Your task to perform on an android device: Open Chrome and go to settings Image 0: 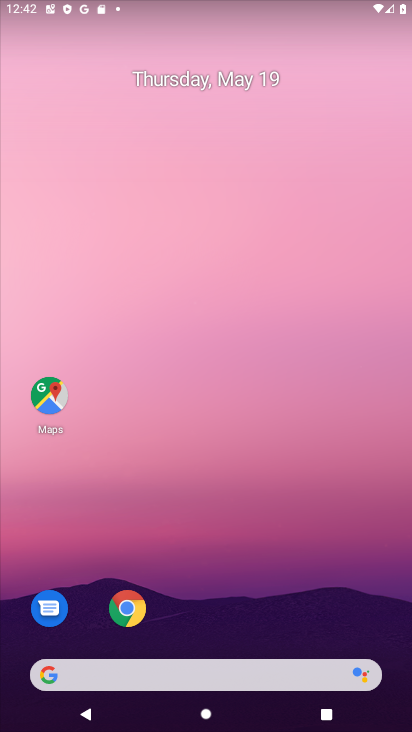
Step 0: drag from (251, 582) to (262, 304)
Your task to perform on an android device: Open Chrome and go to settings Image 1: 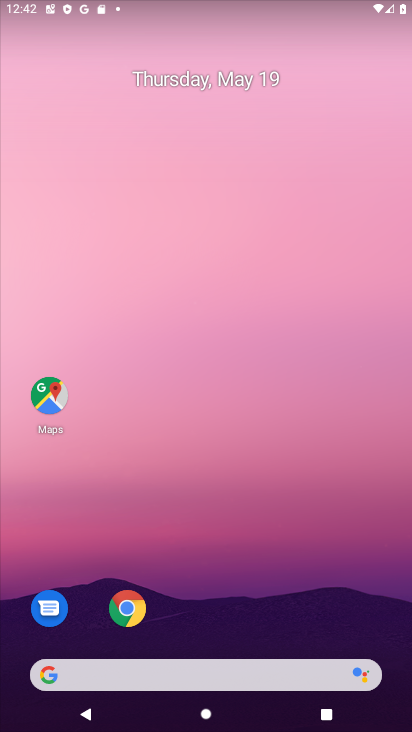
Step 1: click (128, 599)
Your task to perform on an android device: Open Chrome and go to settings Image 2: 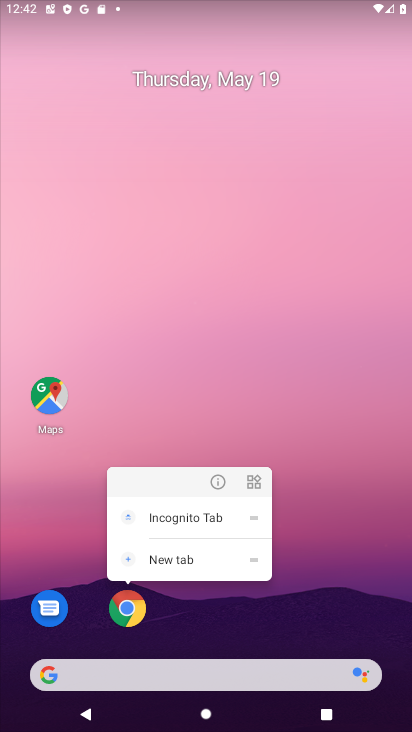
Step 2: click (135, 594)
Your task to perform on an android device: Open Chrome and go to settings Image 3: 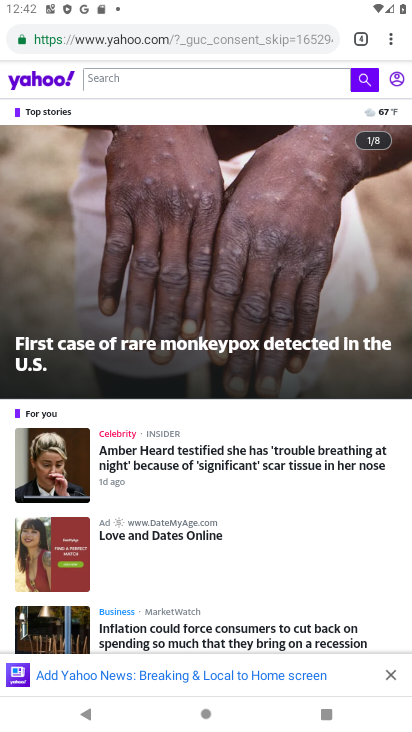
Step 3: click (395, 35)
Your task to perform on an android device: Open Chrome and go to settings Image 4: 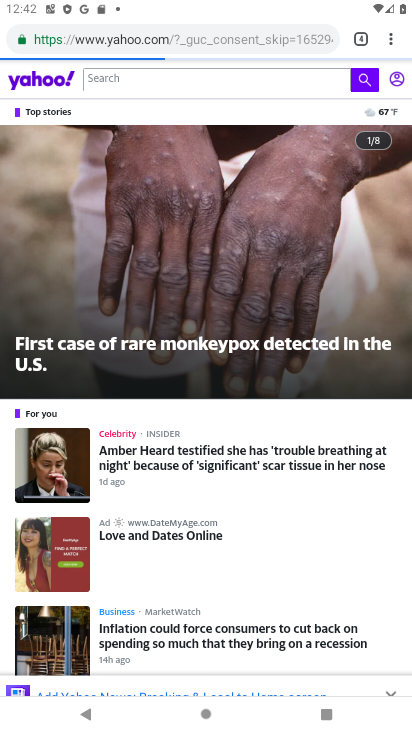
Step 4: click (392, 26)
Your task to perform on an android device: Open Chrome and go to settings Image 5: 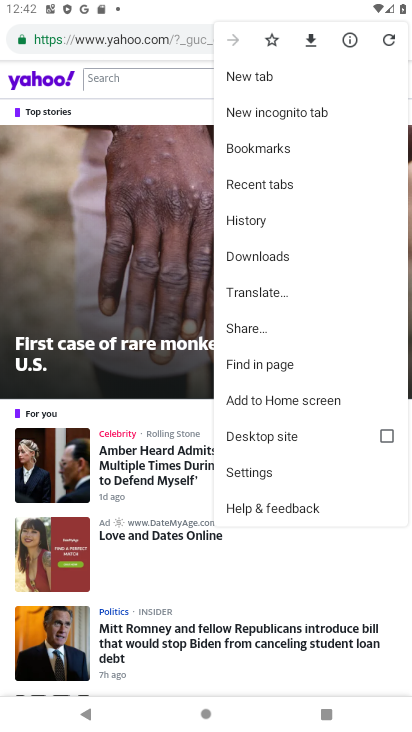
Step 5: click (264, 467)
Your task to perform on an android device: Open Chrome and go to settings Image 6: 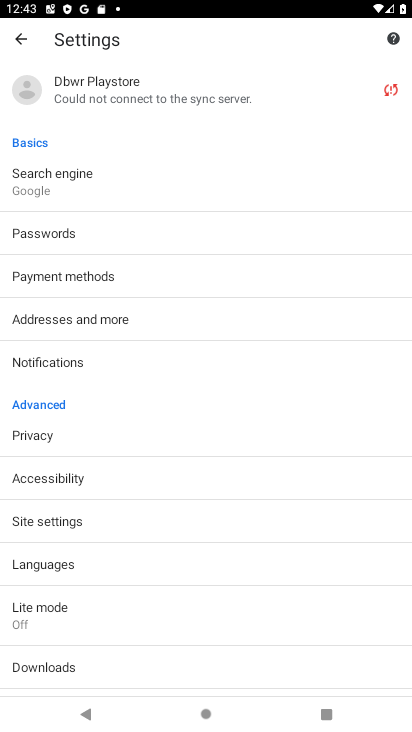
Step 6: task complete